Your task to perform on an android device: Go to Amazon Image 0: 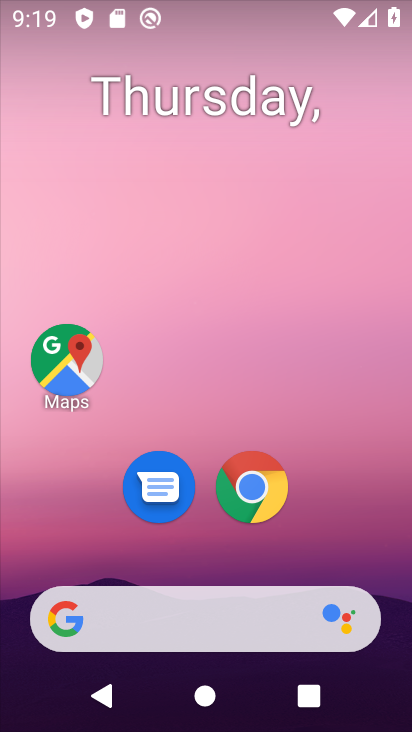
Step 0: click (254, 509)
Your task to perform on an android device: Go to Amazon Image 1: 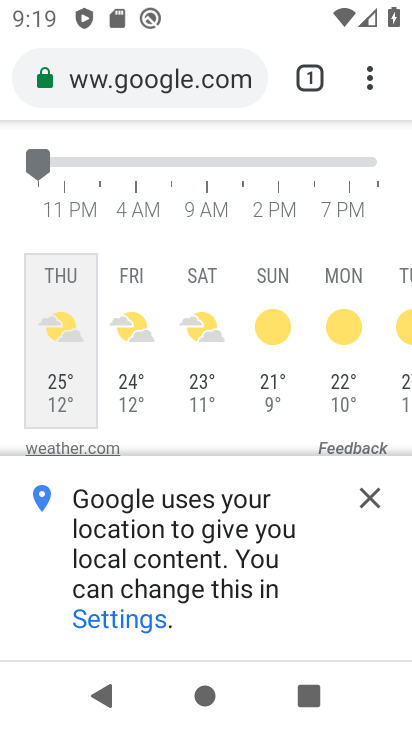
Step 1: click (304, 86)
Your task to perform on an android device: Go to Amazon Image 2: 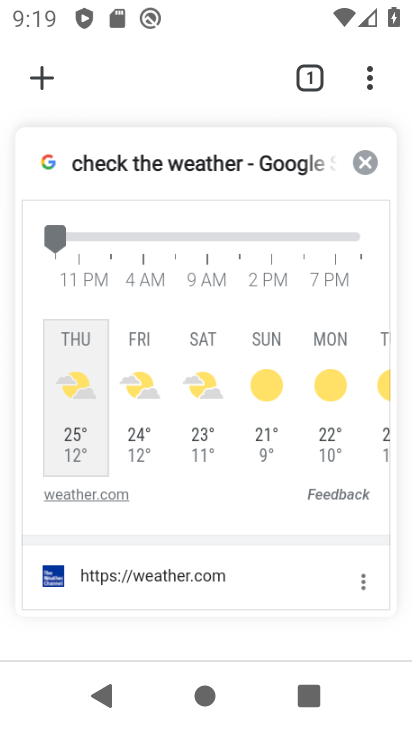
Step 2: click (35, 77)
Your task to perform on an android device: Go to Amazon Image 3: 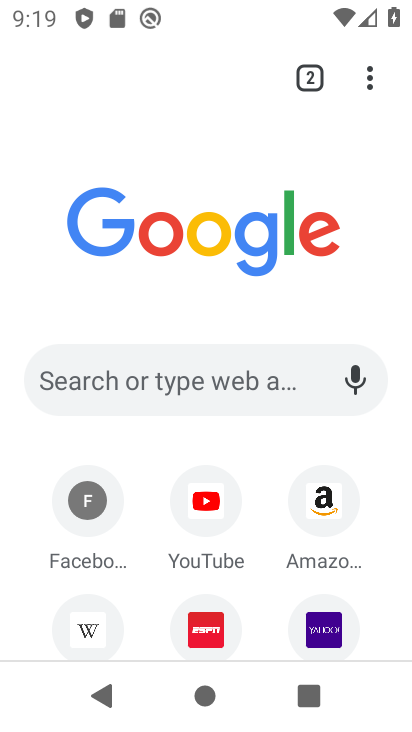
Step 3: click (336, 525)
Your task to perform on an android device: Go to Amazon Image 4: 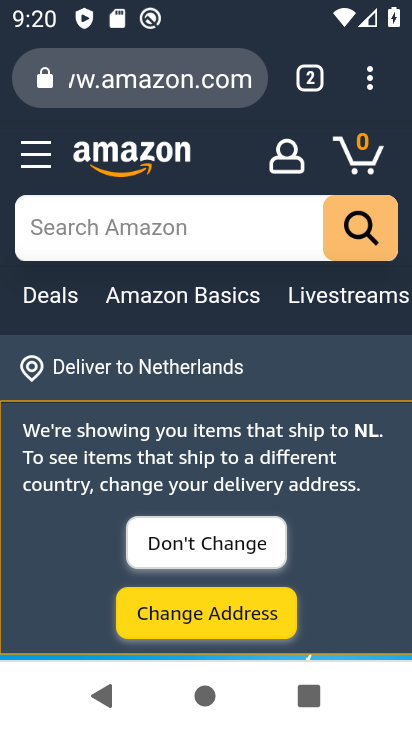
Step 4: task complete